Your task to perform on an android device: turn notification dots on Image 0: 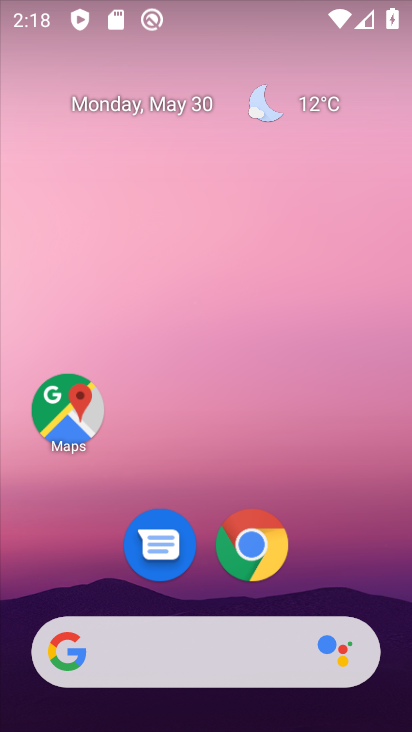
Step 0: drag from (203, 596) to (226, 192)
Your task to perform on an android device: turn notification dots on Image 1: 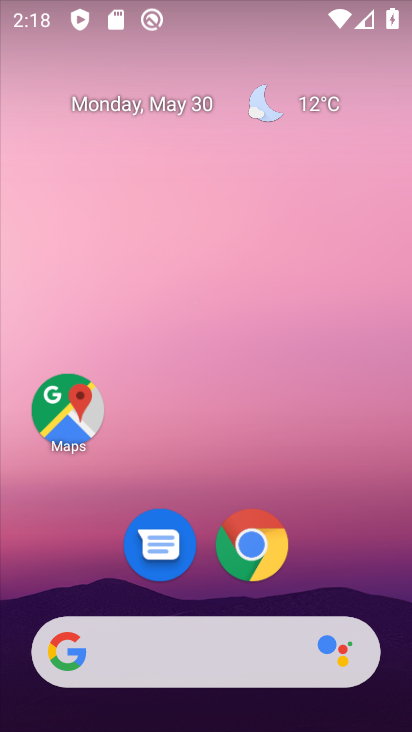
Step 1: drag from (204, 572) to (225, 123)
Your task to perform on an android device: turn notification dots on Image 2: 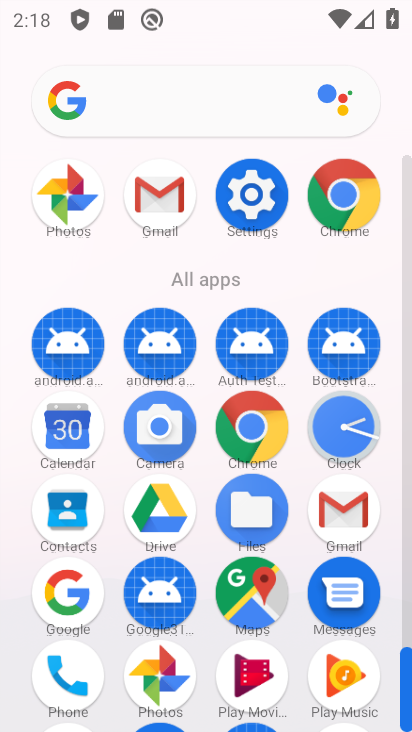
Step 2: click (268, 208)
Your task to perform on an android device: turn notification dots on Image 3: 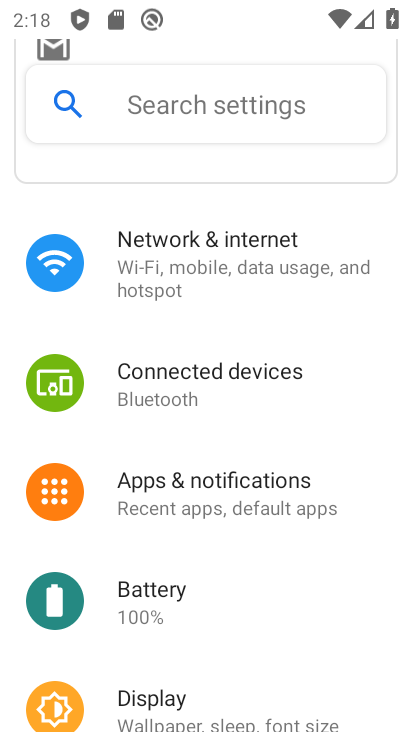
Step 3: click (205, 492)
Your task to perform on an android device: turn notification dots on Image 4: 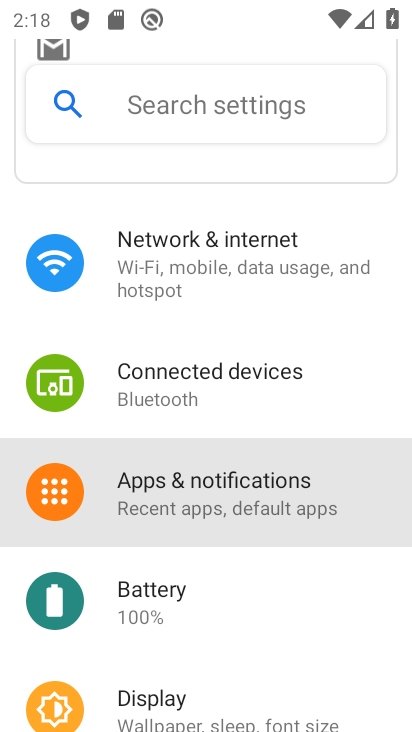
Step 4: click (194, 493)
Your task to perform on an android device: turn notification dots on Image 5: 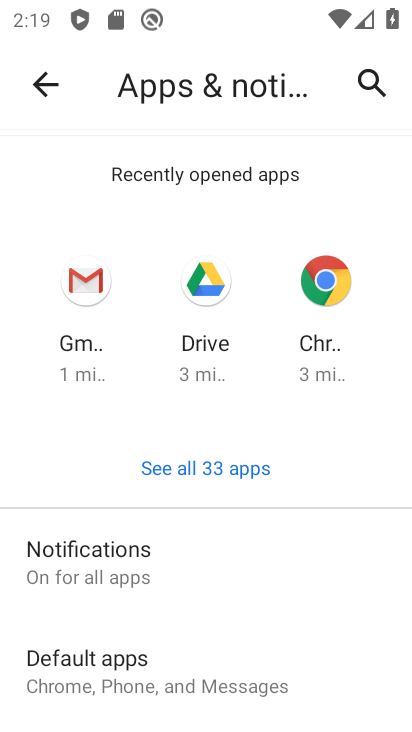
Step 5: click (85, 562)
Your task to perform on an android device: turn notification dots on Image 6: 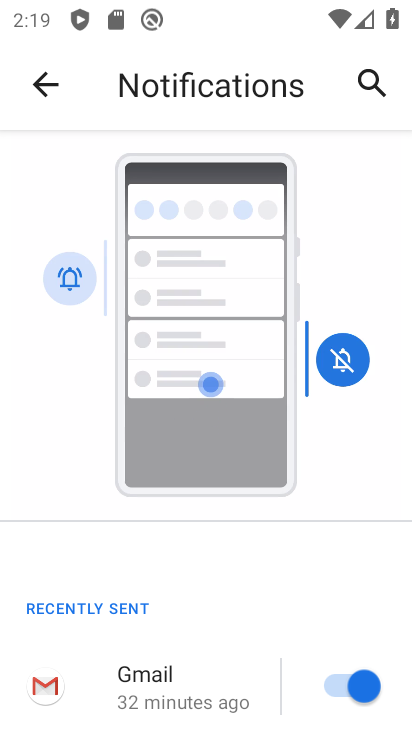
Step 6: drag from (87, 653) to (276, 18)
Your task to perform on an android device: turn notification dots on Image 7: 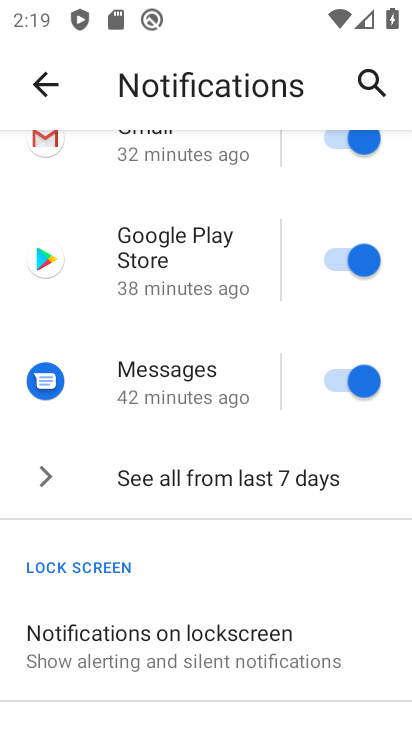
Step 7: drag from (168, 596) to (225, 169)
Your task to perform on an android device: turn notification dots on Image 8: 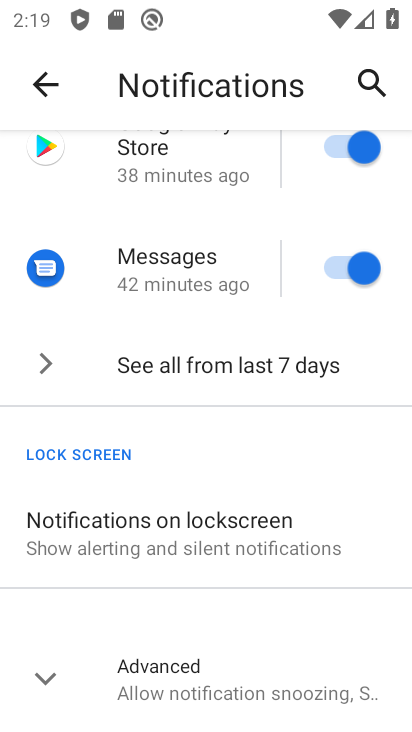
Step 8: click (137, 647)
Your task to perform on an android device: turn notification dots on Image 9: 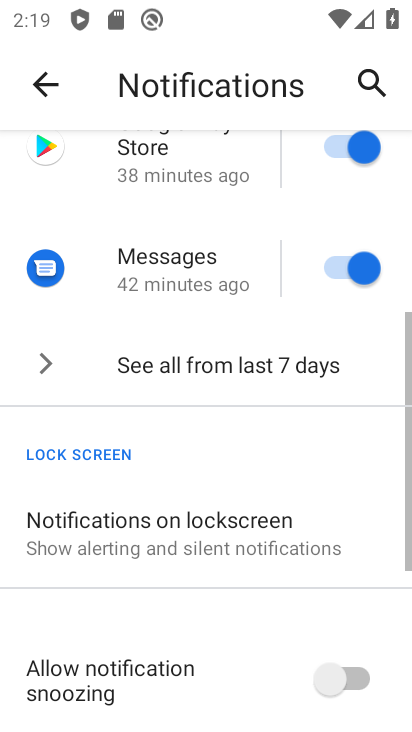
Step 9: drag from (137, 647) to (269, 70)
Your task to perform on an android device: turn notification dots on Image 10: 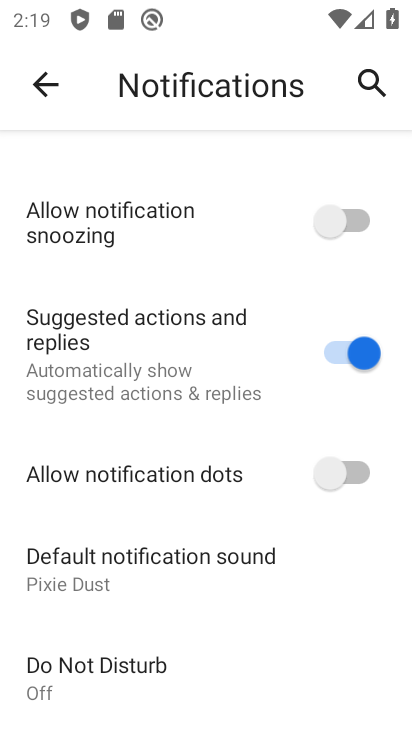
Step 10: click (357, 481)
Your task to perform on an android device: turn notification dots on Image 11: 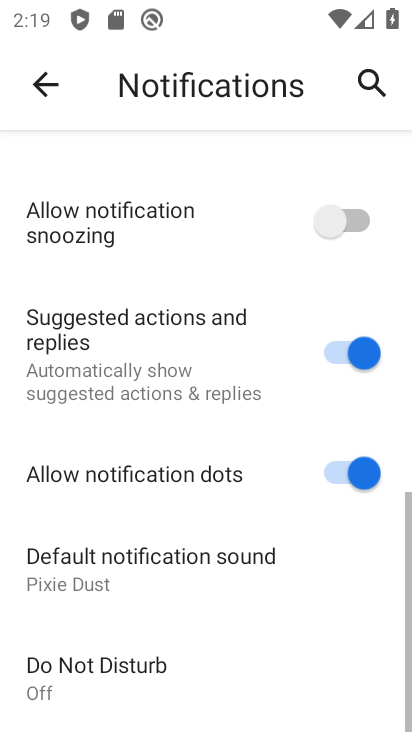
Step 11: task complete